Your task to perform on an android device: see creations saved in the google photos Image 0: 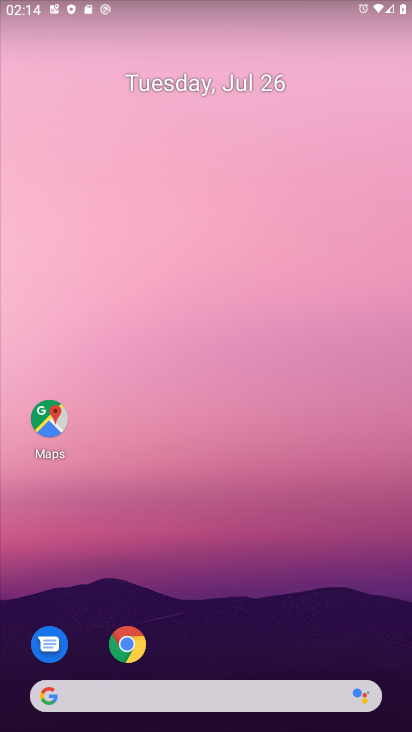
Step 0: drag from (170, 617) to (222, 218)
Your task to perform on an android device: see creations saved in the google photos Image 1: 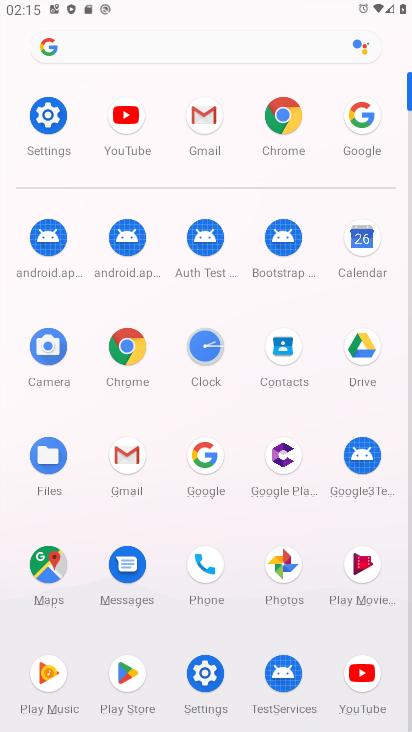
Step 1: click (289, 558)
Your task to perform on an android device: see creations saved in the google photos Image 2: 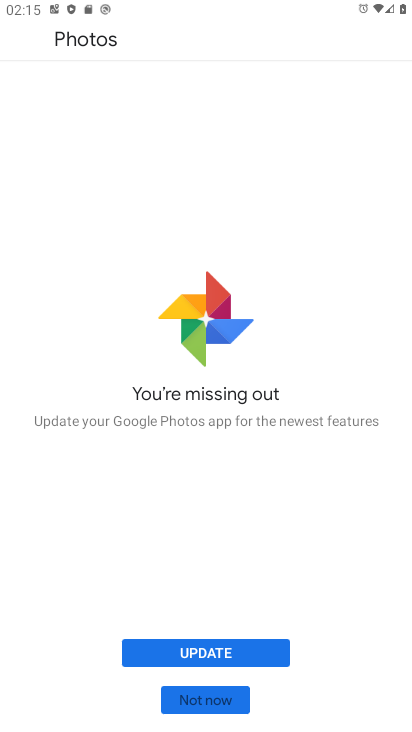
Step 2: click (226, 682)
Your task to perform on an android device: see creations saved in the google photos Image 3: 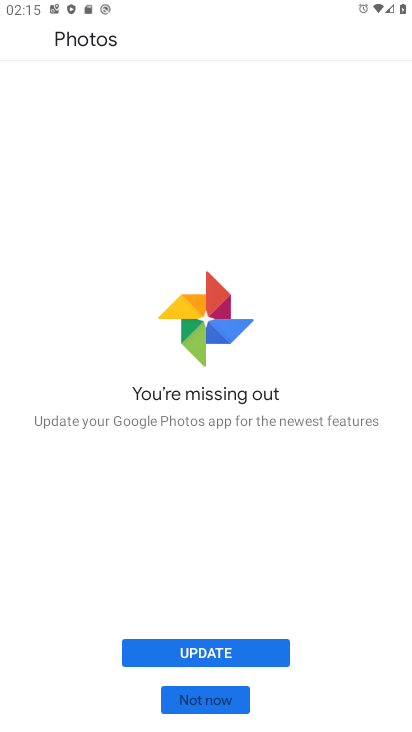
Step 3: click (209, 717)
Your task to perform on an android device: see creations saved in the google photos Image 4: 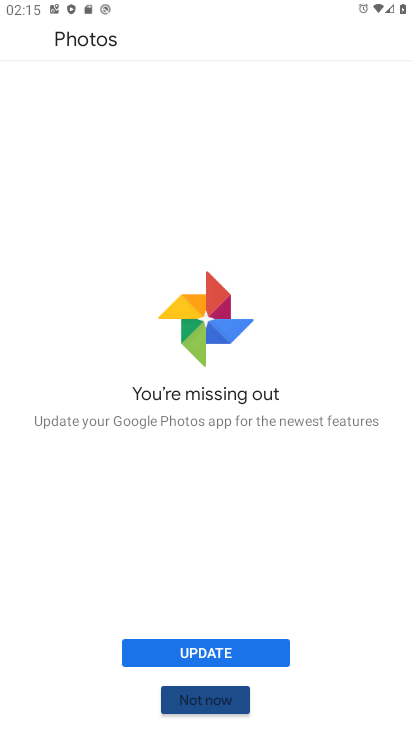
Step 4: click (207, 712)
Your task to perform on an android device: see creations saved in the google photos Image 5: 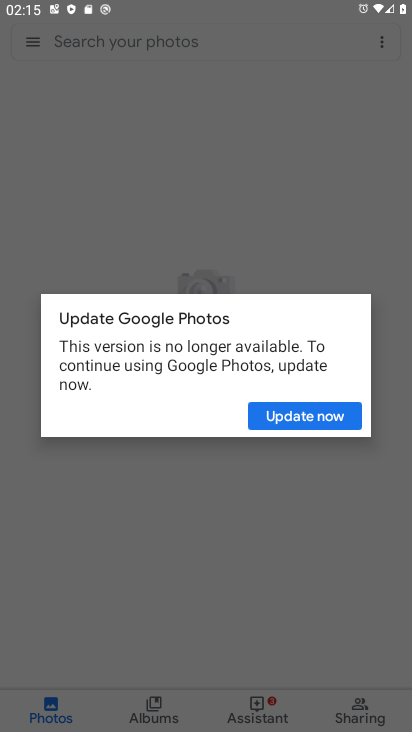
Step 5: click (318, 420)
Your task to perform on an android device: see creations saved in the google photos Image 6: 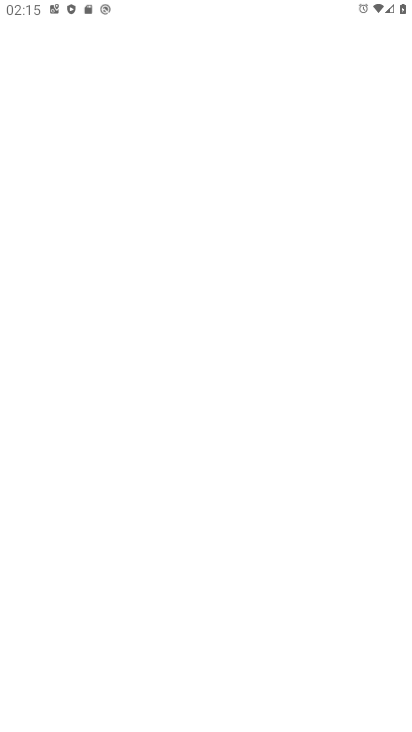
Step 6: press back button
Your task to perform on an android device: see creations saved in the google photos Image 7: 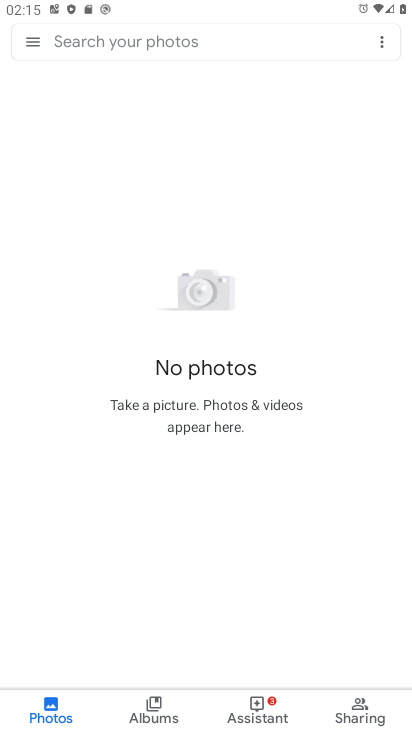
Step 7: click (158, 702)
Your task to perform on an android device: see creations saved in the google photos Image 8: 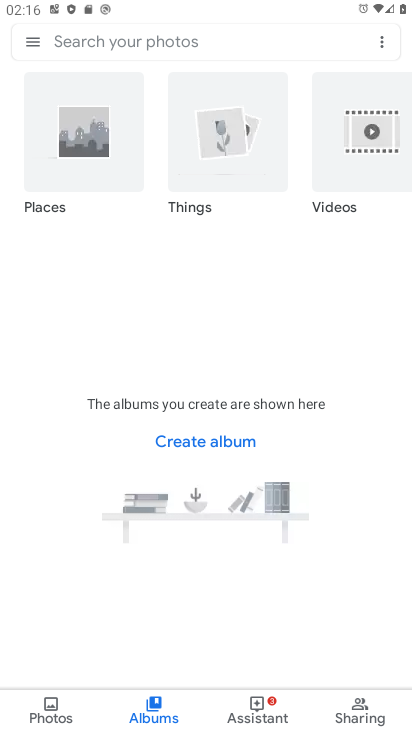
Step 8: task complete